Your task to perform on an android device: read, delete, or share a saved page in the chrome app Image 0: 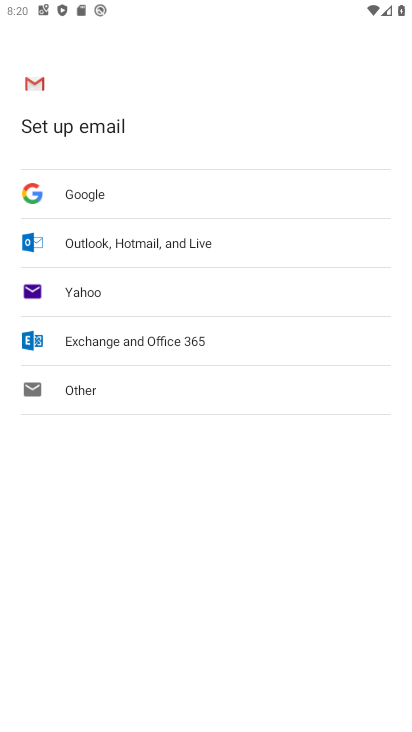
Step 0: press home button
Your task to perform on an android device: read, delete, or share a saved page in the chrome app Image 1: 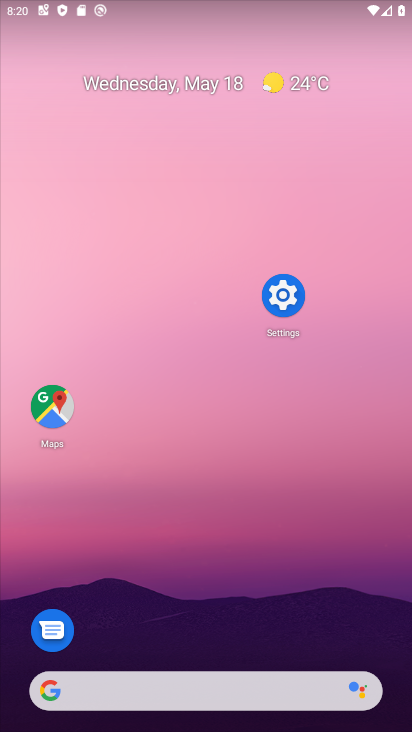
Step 1: drag from (192, 678) to (245, 217)
Your task to perform on an android device: read, delete, or share a saved page in the chrome app Image 2: 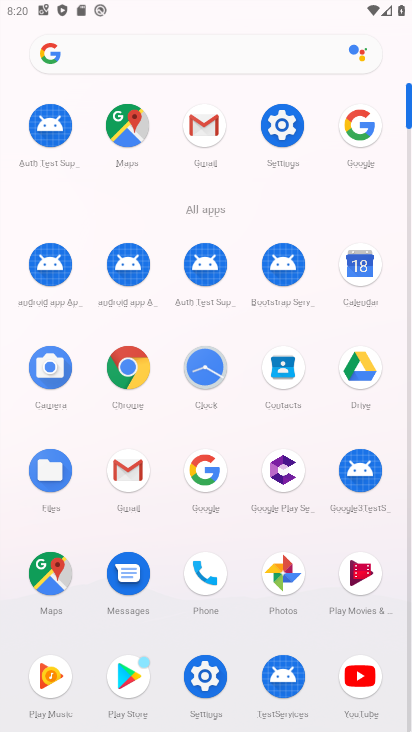
Step 2: click (124, 360)
Your task to perform on an android device: read, delete, or share a saved page in the chrome app Image 3: 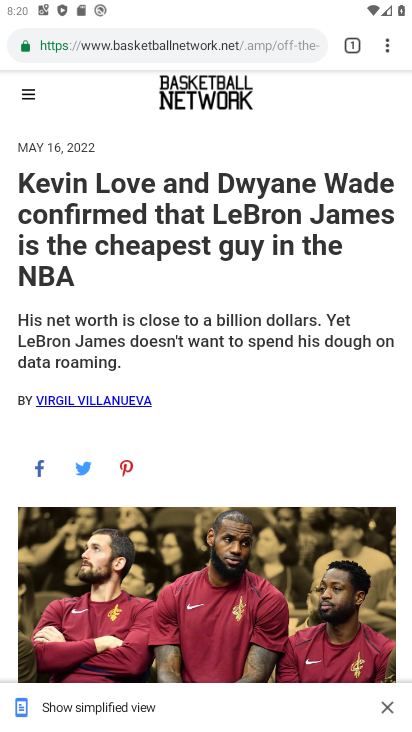
Step 3: click (387, 45)
Your task to perform on an android device: read, delete, or share a saved page in the chrome app Image 4: 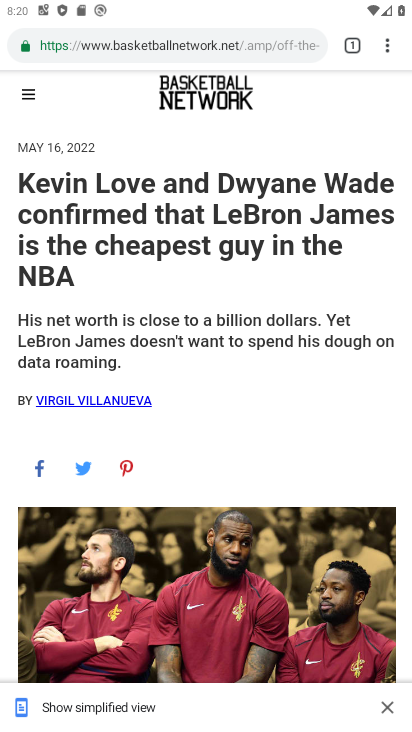
Step 4: click (387, 45)
Your task to perform on an android device: read, delete, or share a saved page in the chrome app Image 5: 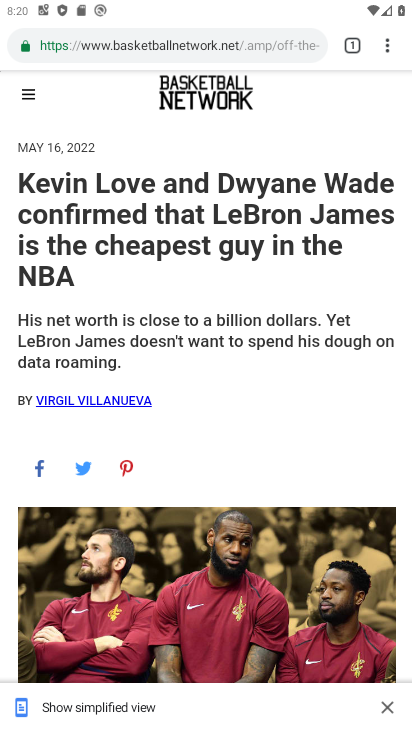
Step 5: click (387, 45)
Your task to perform on an android device: read, delete, or share a saved page in the chrome app Image 6: 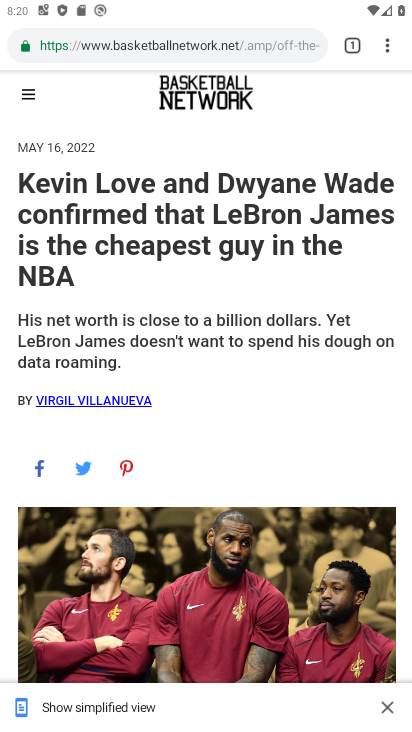
Step 6: click (393, 41)
Your task to perform on an android device: read, delete, or share a saved page in the chrome app Image 7: 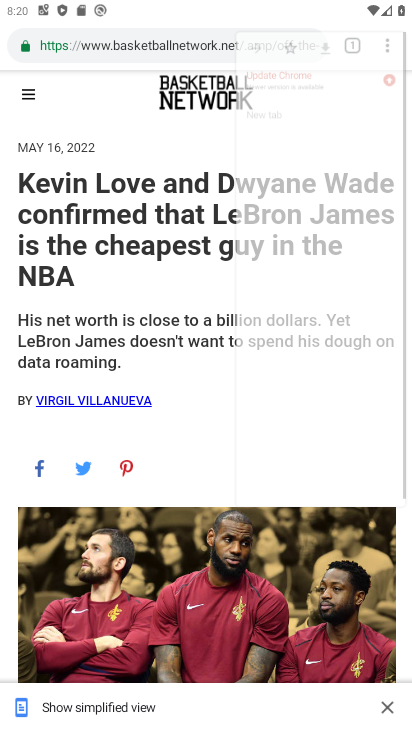
Step 7: click (390, 49)
Your task to perform on an android device: read, delete, or share a saved page in the chrome app Image 8: 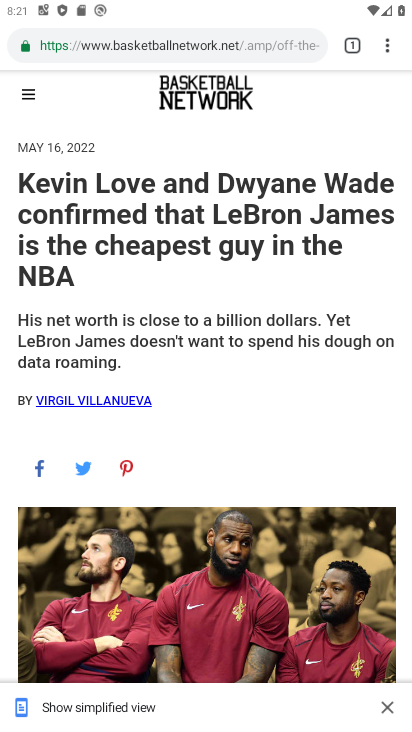
Step 8: click (388, 38)
Your task to perform on an android device: read, delete, or share a saved page in the chrome app Image 9: 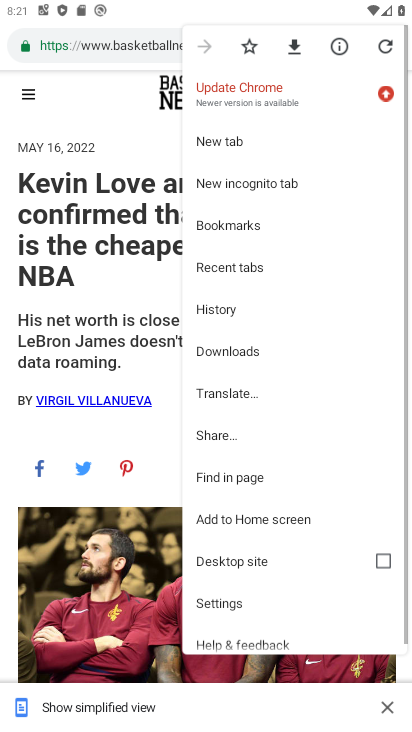
Step 9: click (388, 46)
Your task to perform on an android device: read, delete, or share a saved page in the chrome app Image 10: 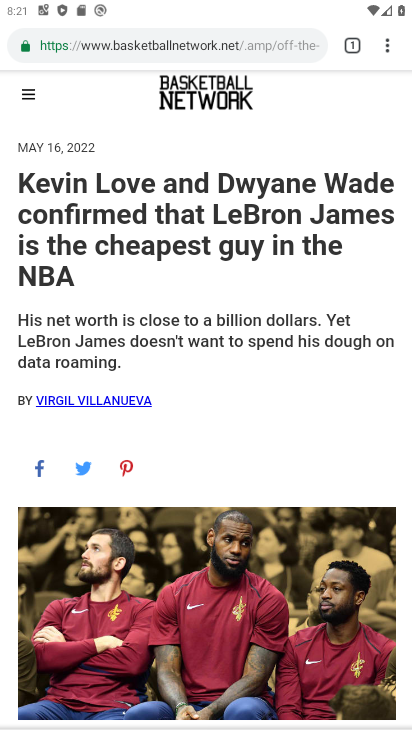
Step 10: click (383, 46)
Your task to perform on an android device: read, delete, or share a saved page in the chrome app Image 11: 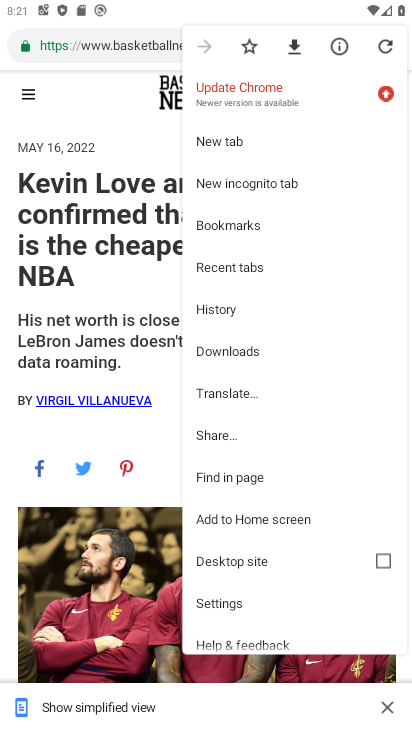
Step 11: click (216, 344)
Your task to perform on an android device: read, delete, or share a saved page in the chrome app Image 12: 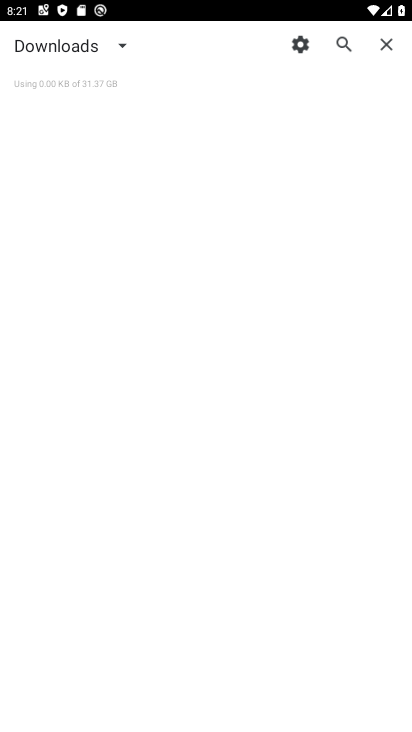
Step 12: click (119, 38)
Your task to perform on an android device: read, delete, or share a saved page in the chrome app Image 13: 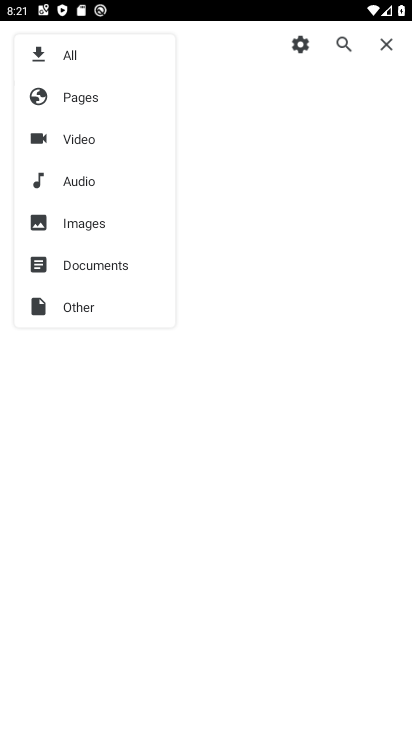
Step 13: click (83, 98)
Your task to perform on an android device: read, delete, or share a saved page in the chrome app Image 14: 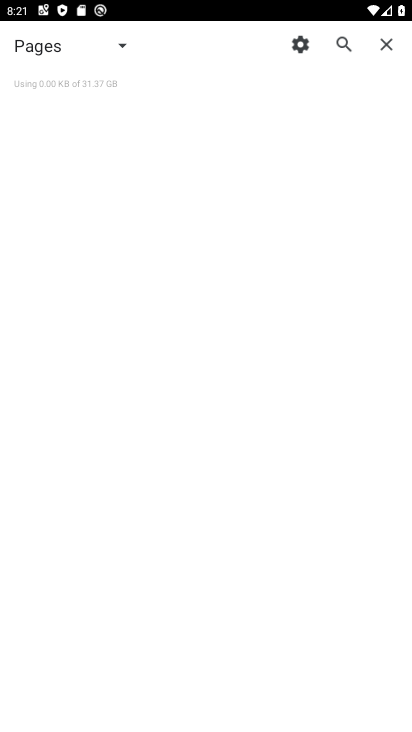
Step 14: task complete